Your task to perform on an android device: open sync settings in chrome Image 0: 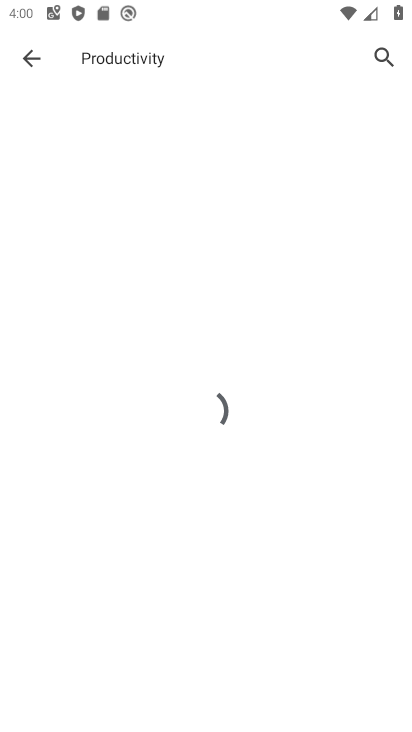
Step 0: click (125, 594)
Your task to perform on an android device: open sync settings in chrome Image 1: 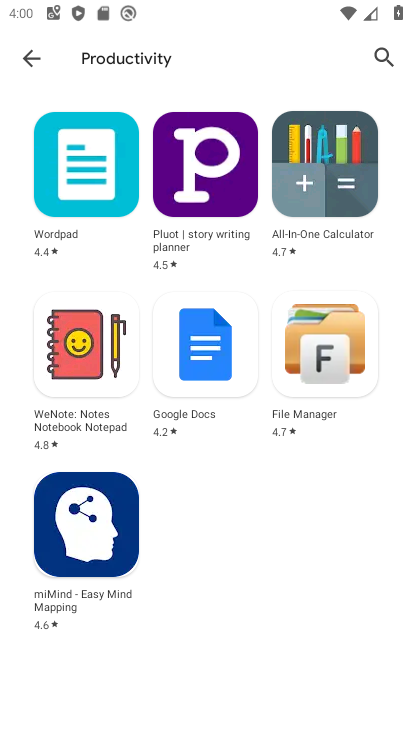
Step 1: press home button
Your task to perform on an android device: open sync settings in chrome Image 2: 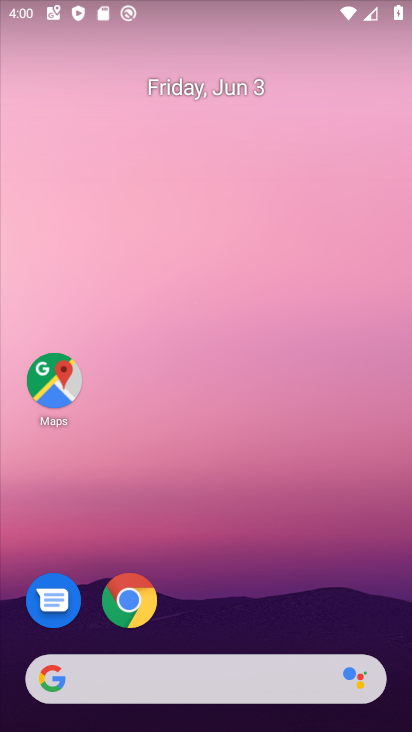
Step 2: click (128, 592)
Your task to perform on an android device: open sync settings in chrome Image 3: 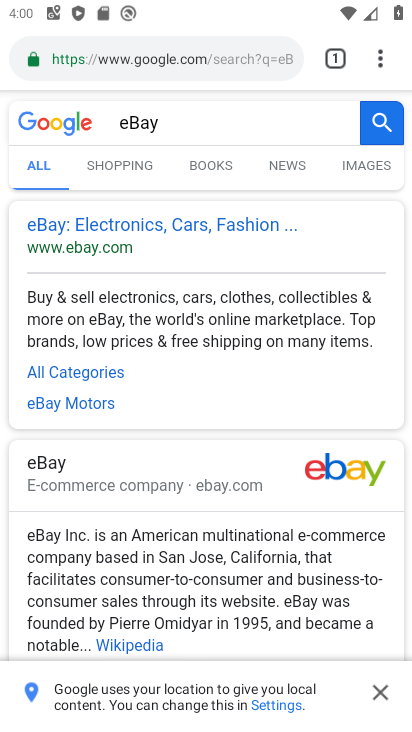
Step 3: click (381, 60)
Your task to perform on an android device: open sync settings in chrome Image 4: 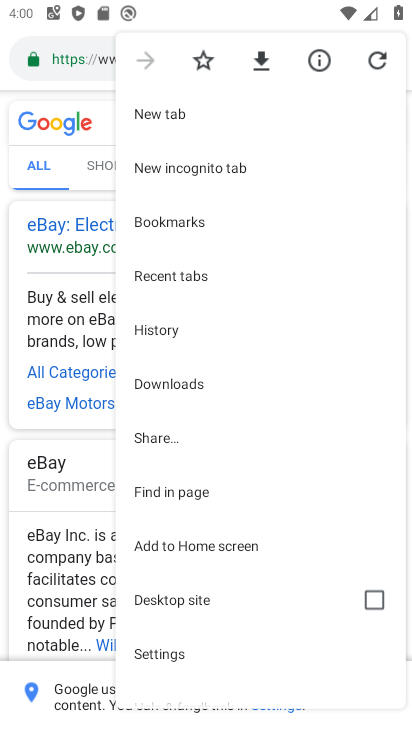
Step 4: click (174, 657)
Your task to perform on an android device: open sync settings in chrome Image 5: 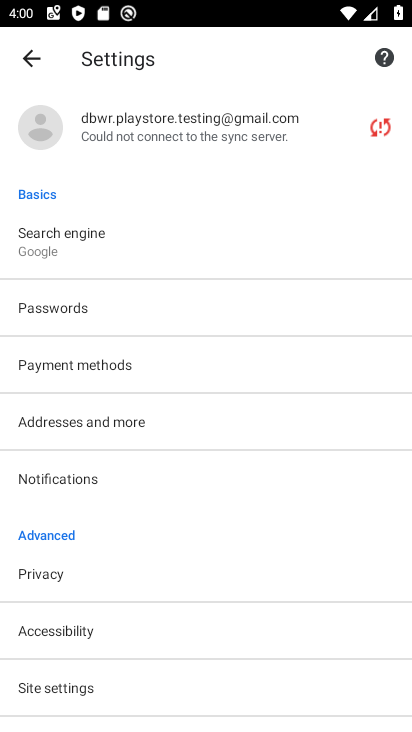
Step 5: click (174, 128)
Your task to perform on an android device: open sync settings in chrome Image 6: 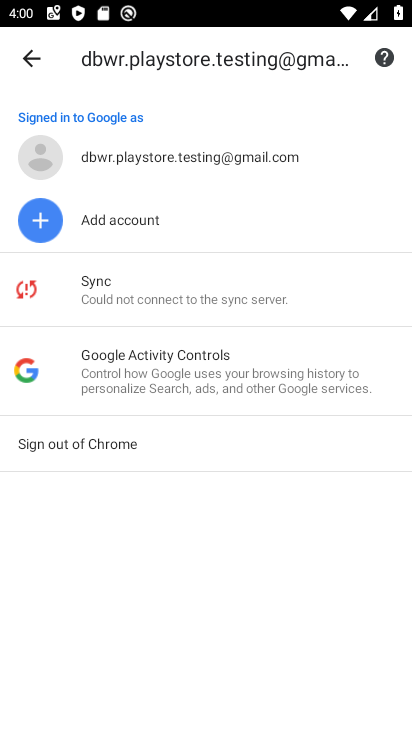
Step 6: click (135, 290)
Your task to perform on an android device: open sync settings in chrome Image 7: 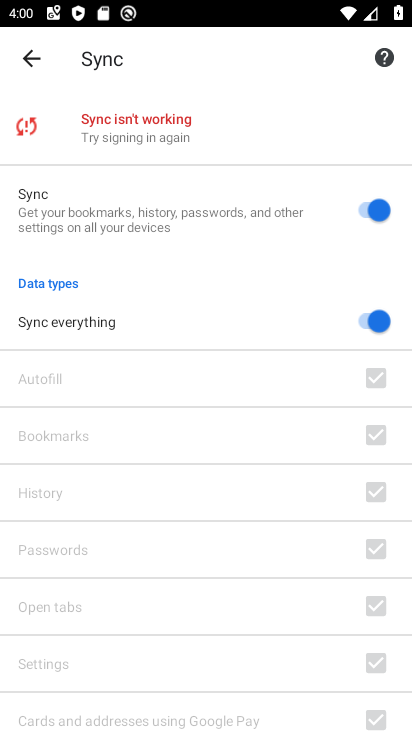
Step 7: click (169, 133)
Your task to perform on an android device: open sync settings in chrome Image 8: 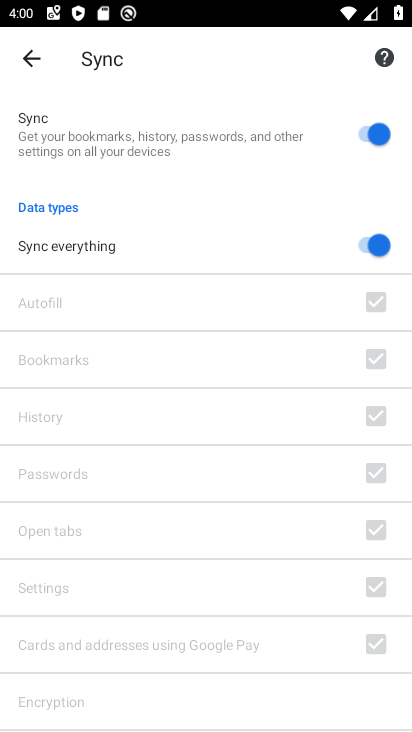
Step 8: task complete